Your task to perform on an android device: Show me recent news Image 0: 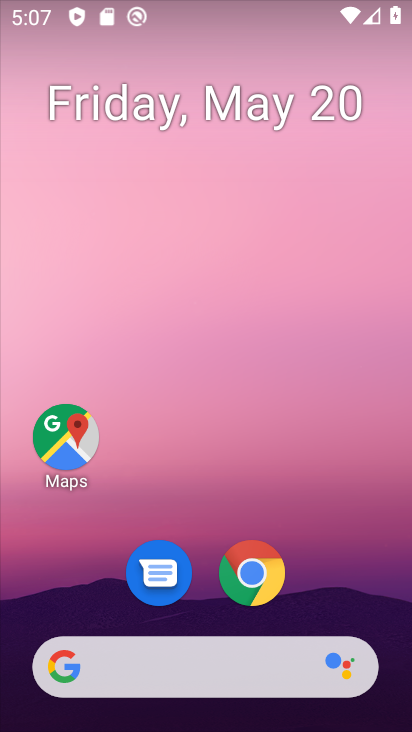
Step 0: drag from (342, 551) to (160, 6)
Your task to perform on an android device: Show me recent news Image 1: 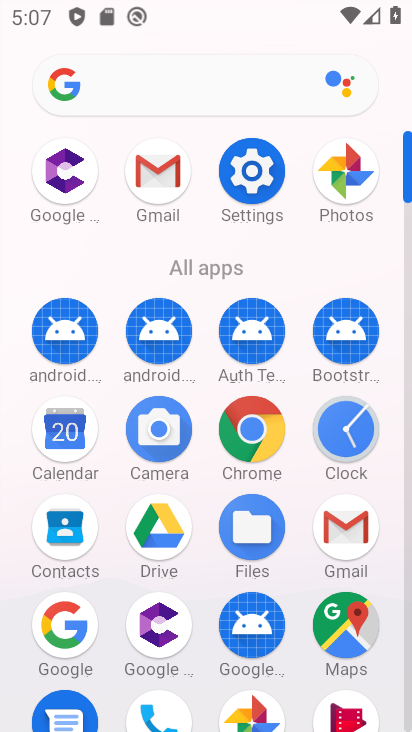
Step 1: click (64, 621)
Your task to perform on an android device: Show me recent news Image 2: 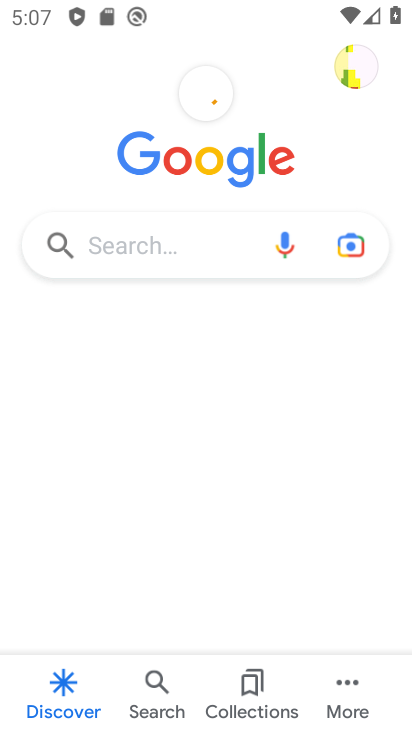
Step 2: click (152, 241)
Your task to perform on an android device: Show me recent news Image 3: 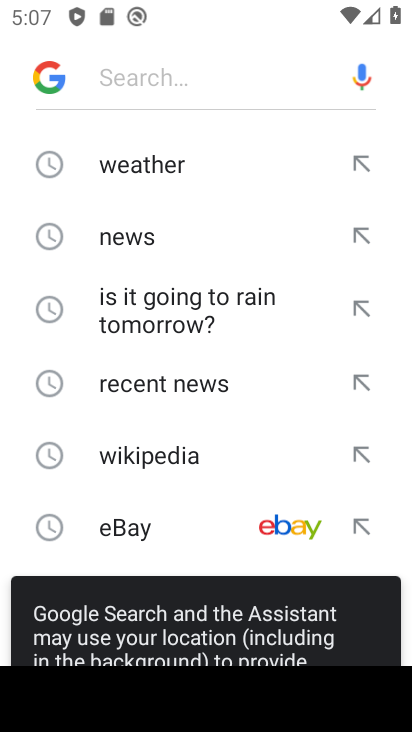
Step 3: click (133, 375)
Your task to perform on an android device: Show me recent news Image 4: 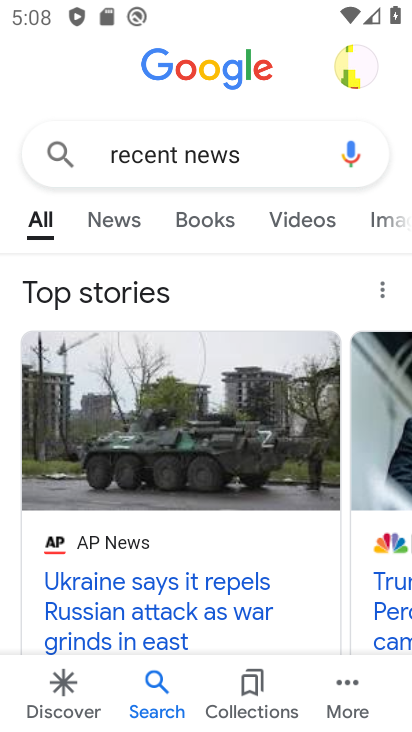
Step 4: task complete